Your task to perform on an android device: Open notification settings Image 0: 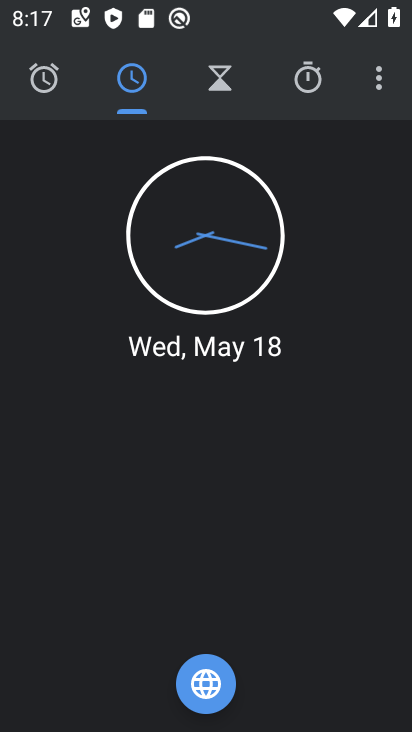
Step 0: press home button
Your task to perform on an android device: Open notification settings Image 1: 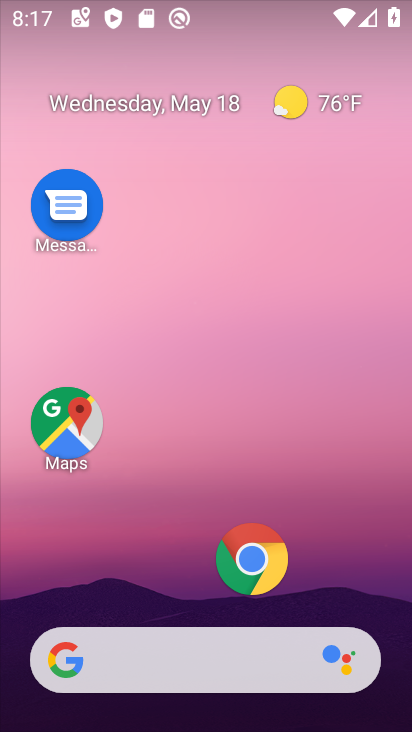
Step 1: drag from (242, 630) to (139, 143)
Your task to perform on an android device: Open notification settings Image 2: 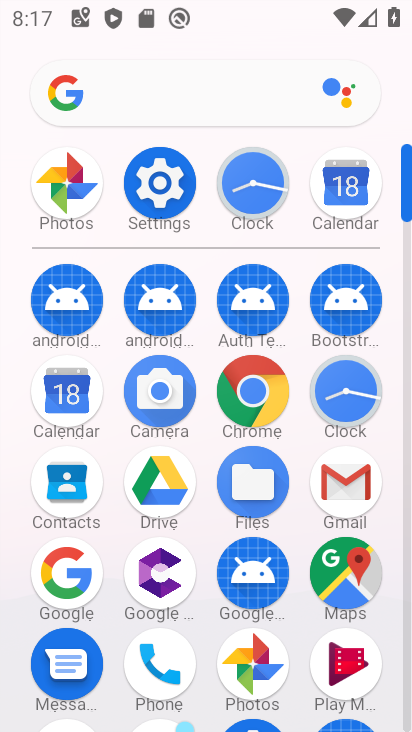
Step 2: click (144, 177)
Your task to perform on an android device: Open notification settings Image 3: 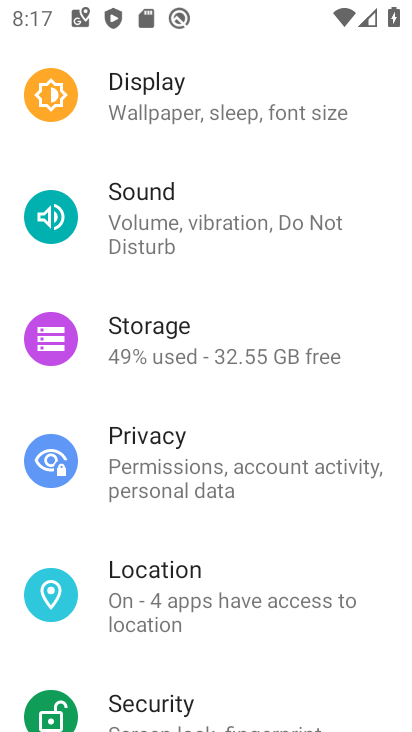
Step 3: drag from (267, 485) to (184, 728)
Your task to perform on an android device: Open notification settings Image 4: 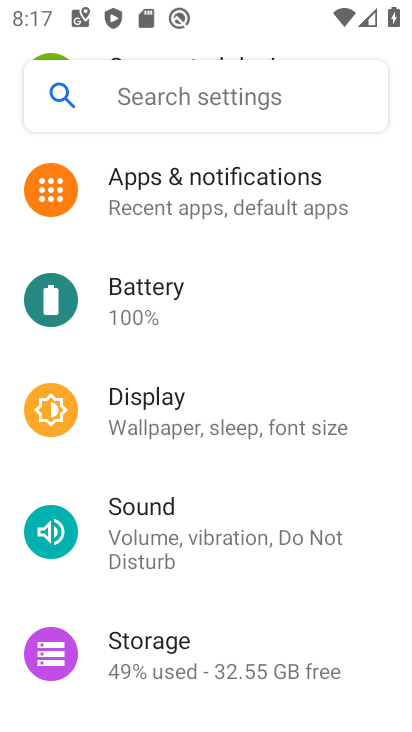
Step 4: click (186, 226)
Your task to perform on an android device: Open notification settings Image 5: 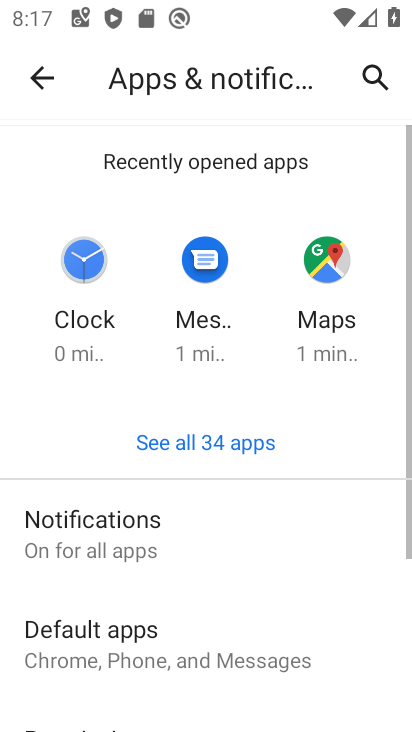
Step 5: click (135, 554)
Your task to perform on an android device: Open notification settings Image 6: 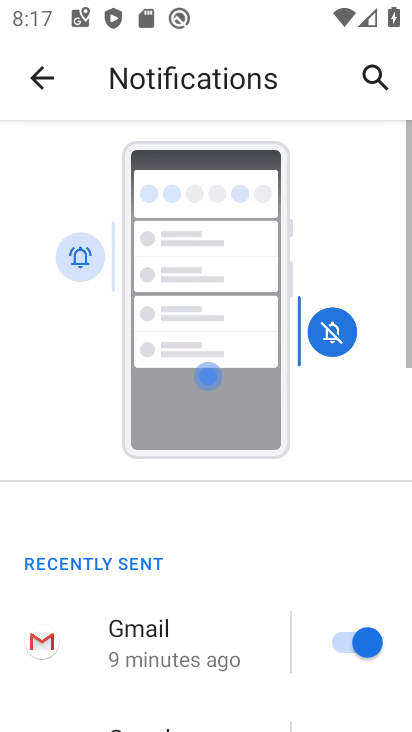
Step 6: task complete